Your task to perform on an android device: delete the emails in spam in the gmail app Image 0: 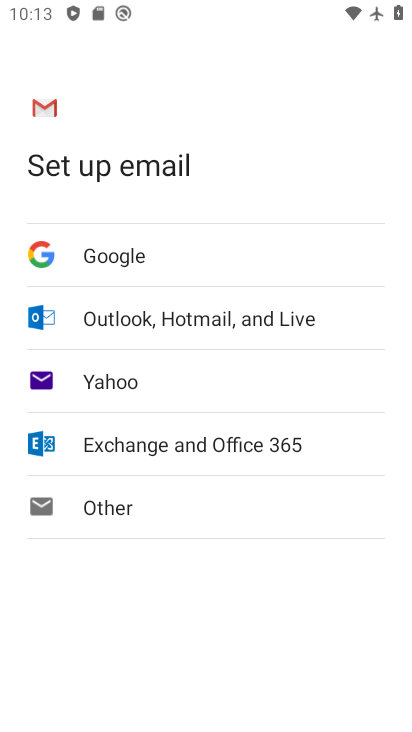
Step 0: press home button
Your task to perform on an android device: delete the emails in spam in the gmail app Image 1: 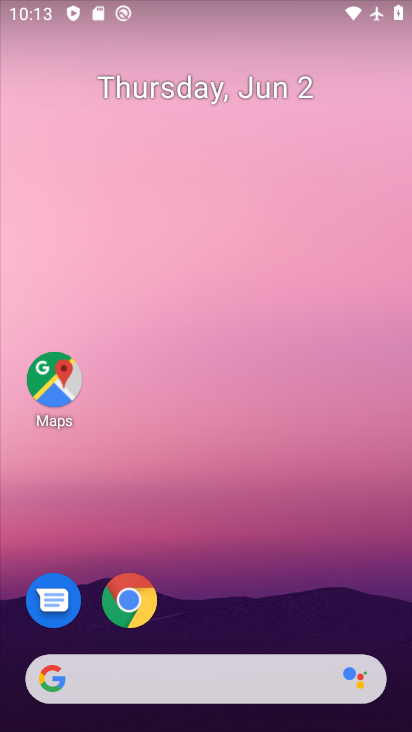
Step 1: drag from (174, 687) to (329, 34)
Your task to perform on an android device: delete the emails in spam in the gmail app Image 2: 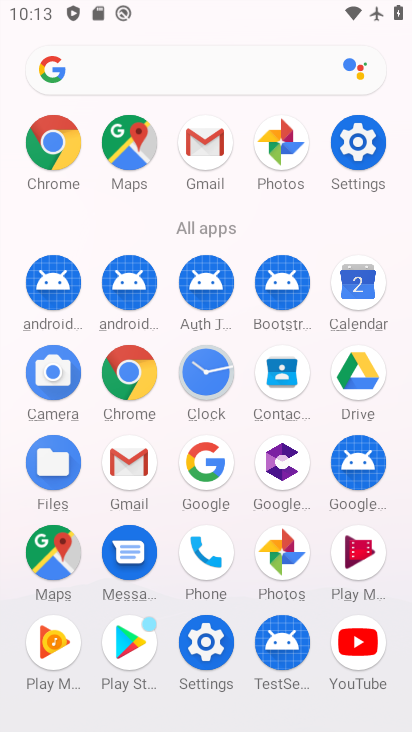
Step 2: click (209, 148)
Your task to perform on an android device: delete the emails in spam in the gmail app Image 3: 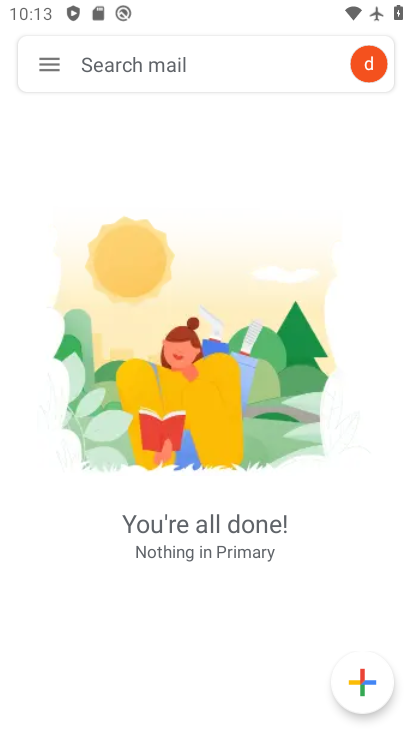
Step 3: click (39, 62)
Your task to perform on an android device: delete the emails in spam in the gmail app Image 4: 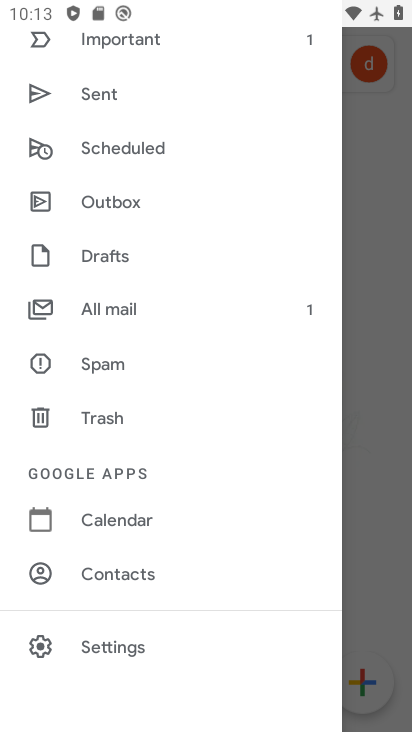
Step 4: click (112, 367)
Your task to perform on an android device: delete the emails in spam in the gmail app Image 5: 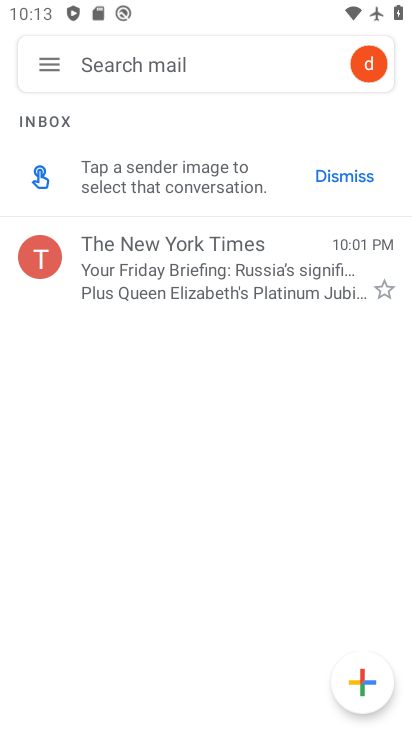
Step 5: click (48, 64)
Your task to perform on an android device: delete the emails in spam in the gmail app Image 6: 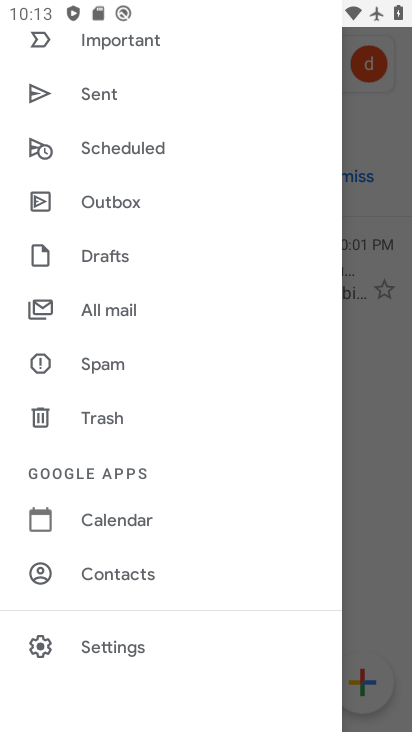
Step 6: click (101, 363)
Your task to perform on an android device: delete the emails in spam in the gmail app Image 7: 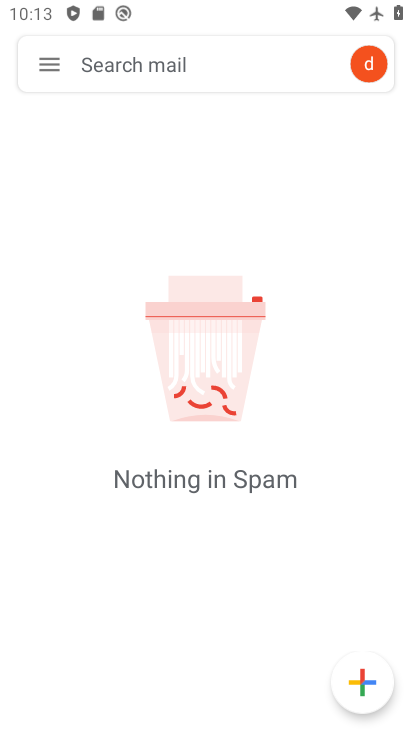
Step 7: task complete